Your task to perform on an android device: Go to CNN.com Image 0: 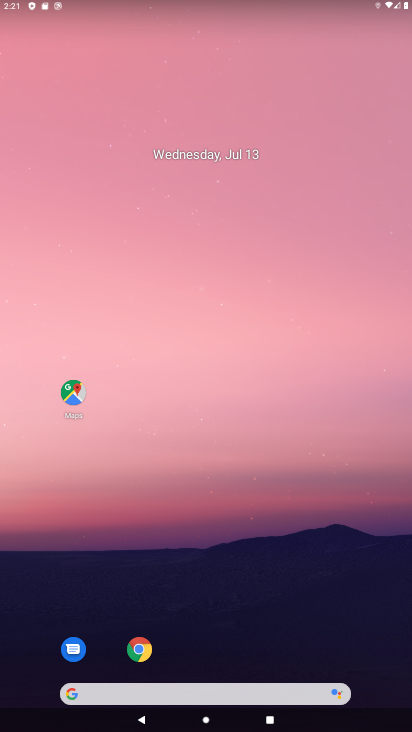
Step 0: click (141, 654)
Your task to perform on an android device: Go to CNN.com Image 1: 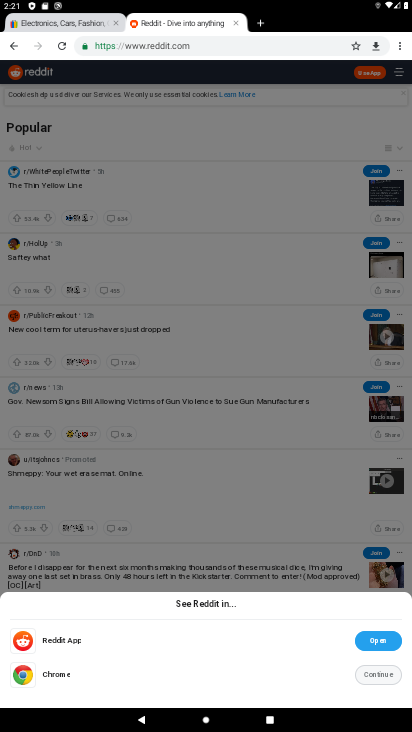
Step 1: click (399, 42)
Your task to perform on an android device: Go to CNN.com Image 2: 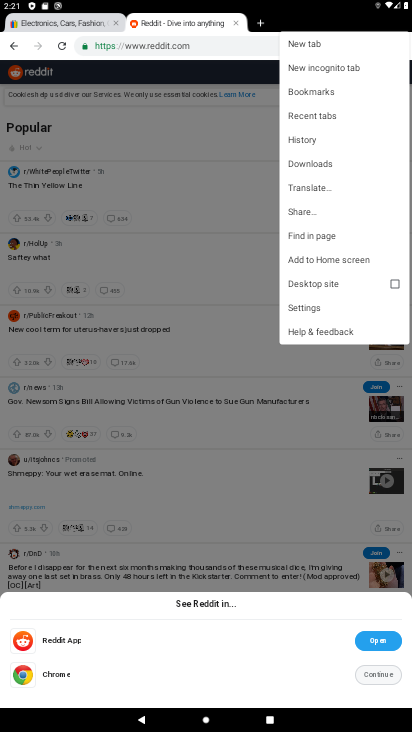
Step 2: click (313, 38)
Your task to perform on an android device: Go to CNN.com Image 3: 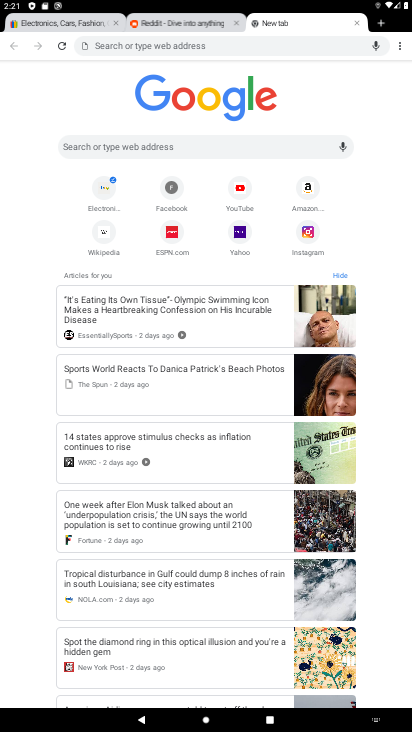
Step 3: click (155, 141)
Your task to perform on an android device: Go to CNN.com Image 4: 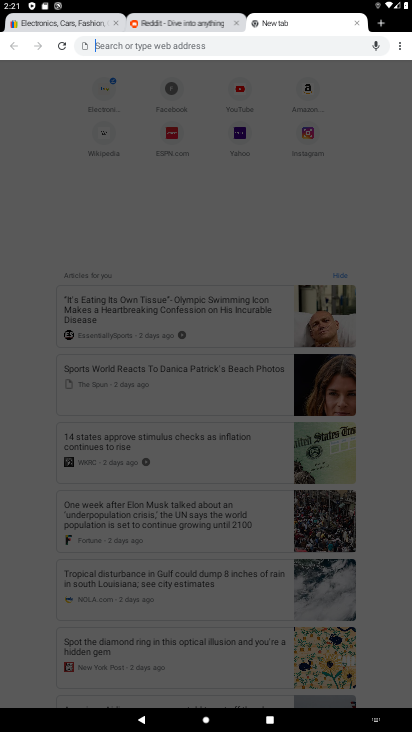
Step 4: type "cnn.com"
Your task to perform on an android device: Go to CNN.com Image 5: 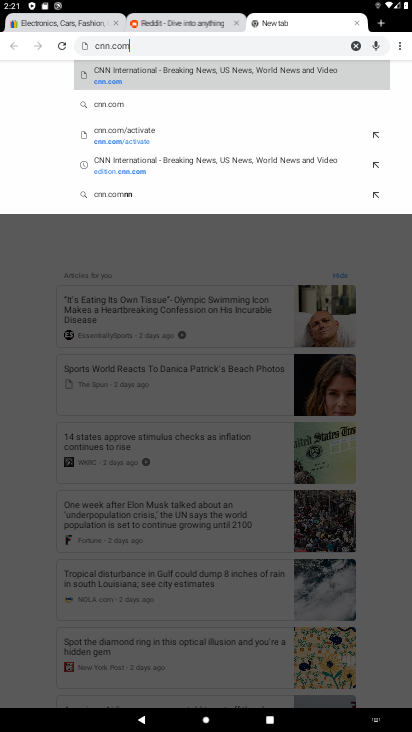
Step 5: click (127, 75)
Your task to perform on an android device: Go to CNN.com Image 6: 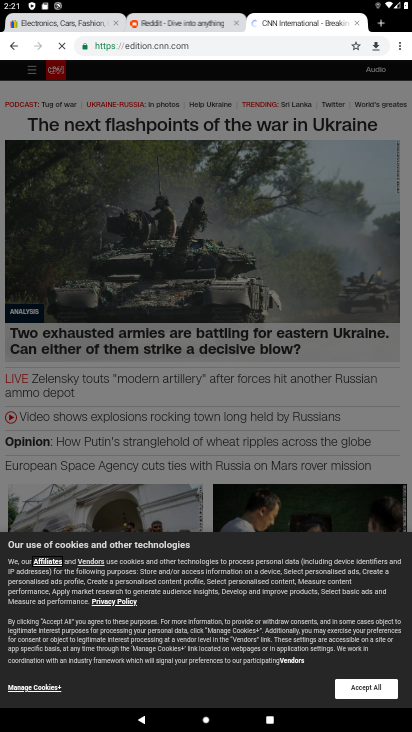
Step 6: task complete